Your task to perform on an android device: Open Google Chrome and open the bookmarks view Image 0: 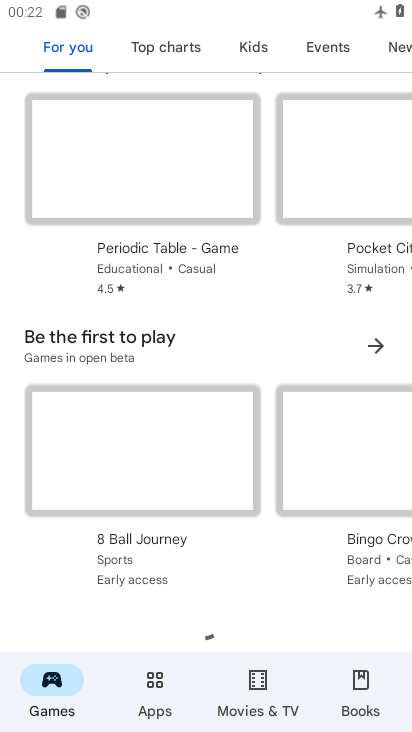
Step 0: press home button
Your task to perform on an android device: Open Google Chrome and open the bookmarks view Image 1: 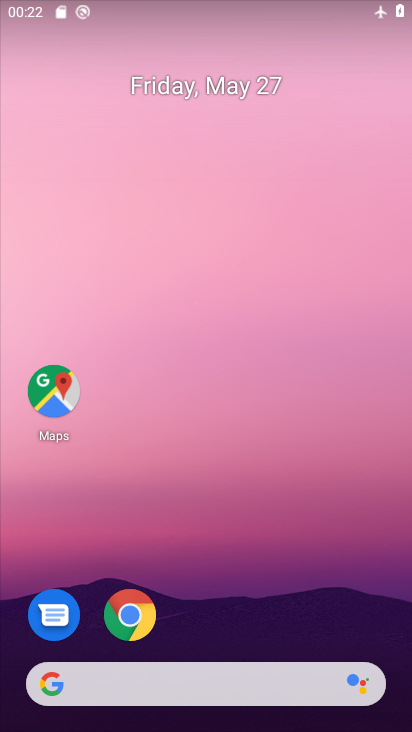
Step 1: drag from (346, 553) to (364, 200)
Your task to perform on an android device: Open Google Chrome and open the bookmarks view Image 2: 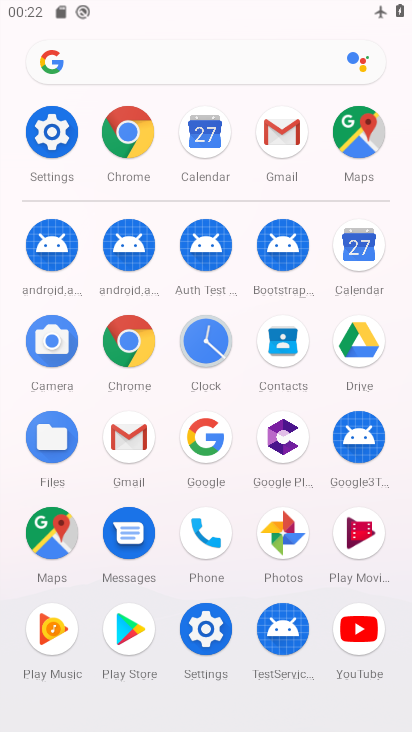
Step 2: click (140, 357)
Your task to perform on an android device: Open Google Chrome and open the bookmarks view Image 3: 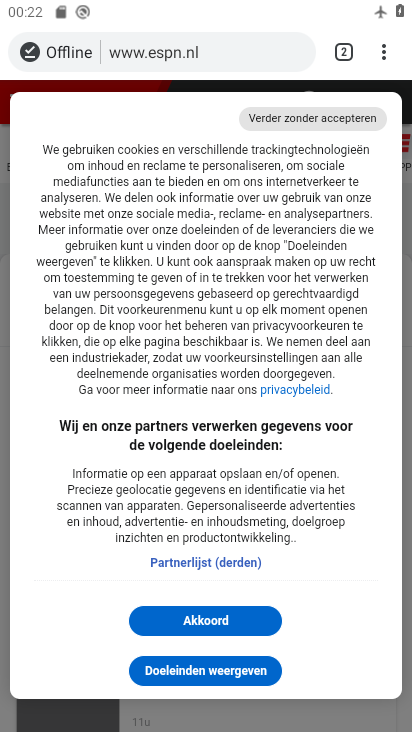
Step 3: click (383, 47)
Your task to perform on an android device: Open Google Chrome and open the bookmarks view Image 4: 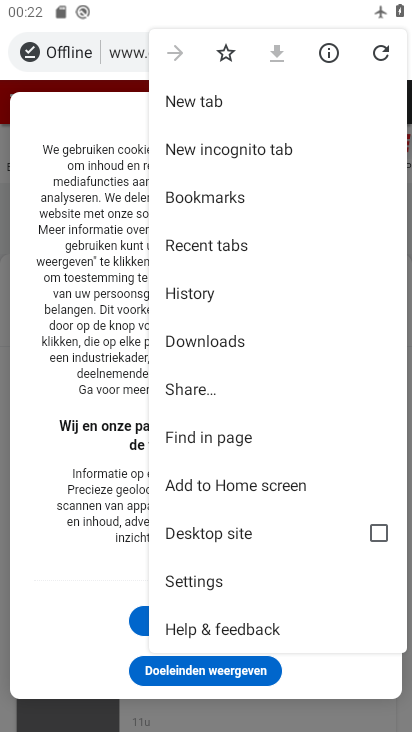
Step 4: click (239, 198)
Your task to perform on an android device: Open Google Chrome and open the bookmarks view Image 5: 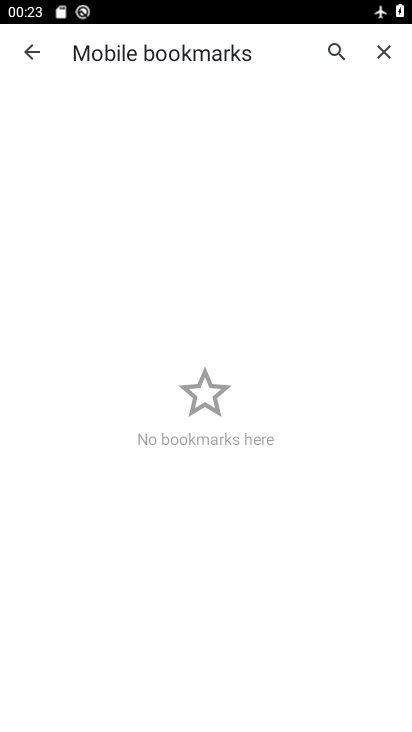
Step 5: task complete